Your task to perform on an android device: Clear all items from cart on costco. Image 0: 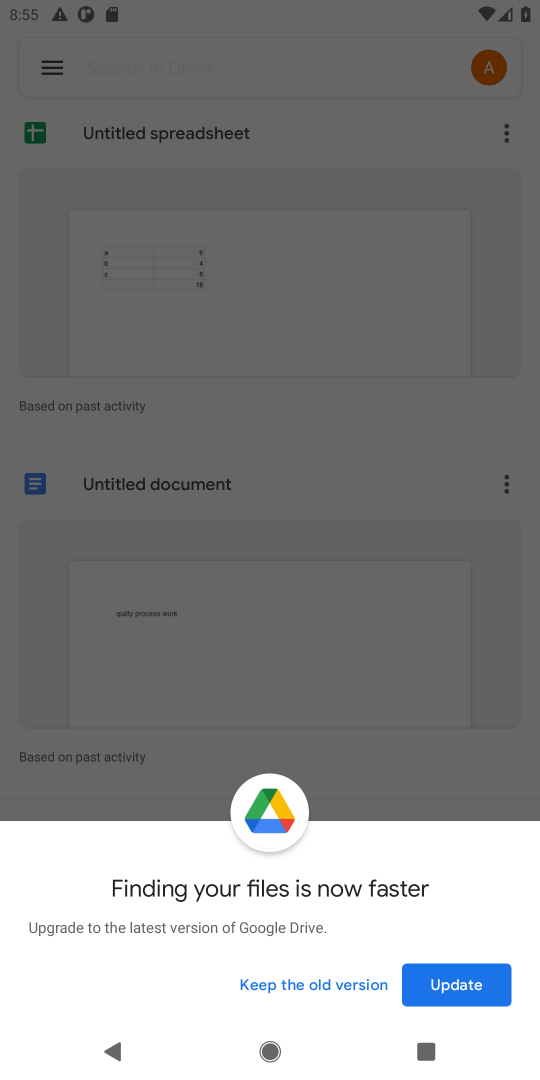
Step 0: press home button
Your task to perform on an android device: Clear all items from cart on costco. Image 1: 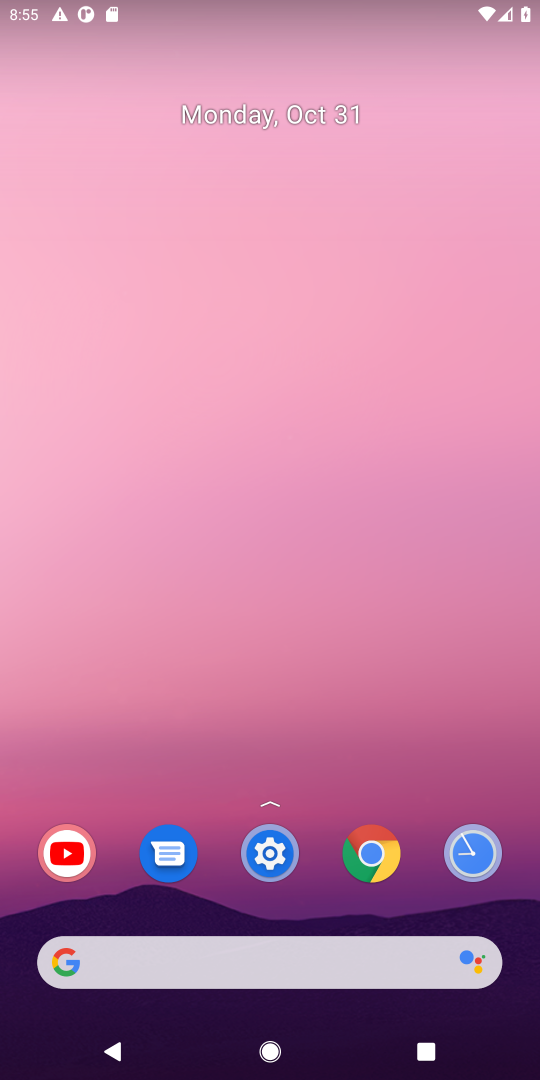
Step 1: click (336, 966)
Your task to perform on an android device: Clear all items from cart on costco. Image 2: 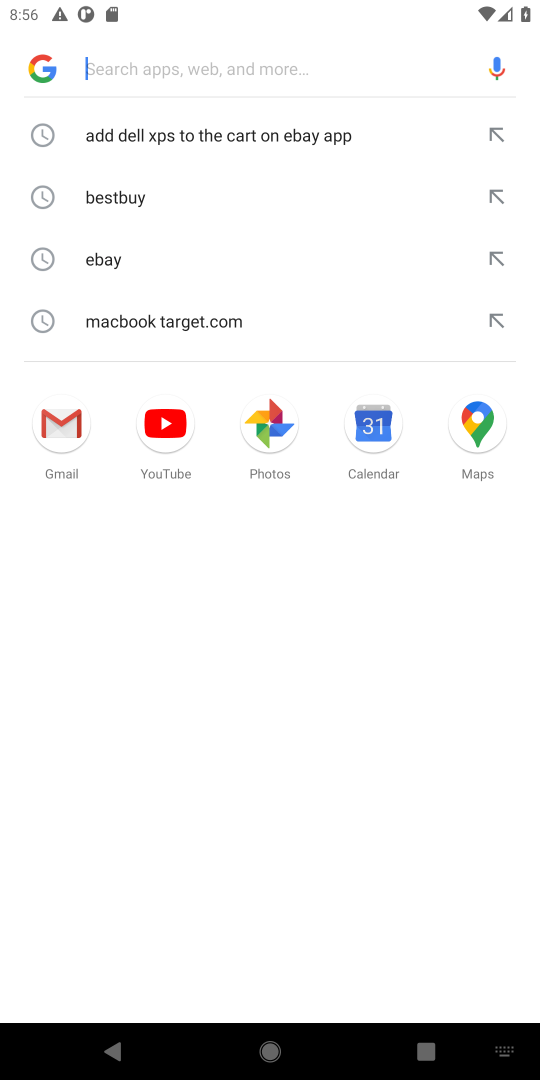
Step 2: type "costco"
Your task to perform on an android device: Clear all items from cart on costco. Image 3: 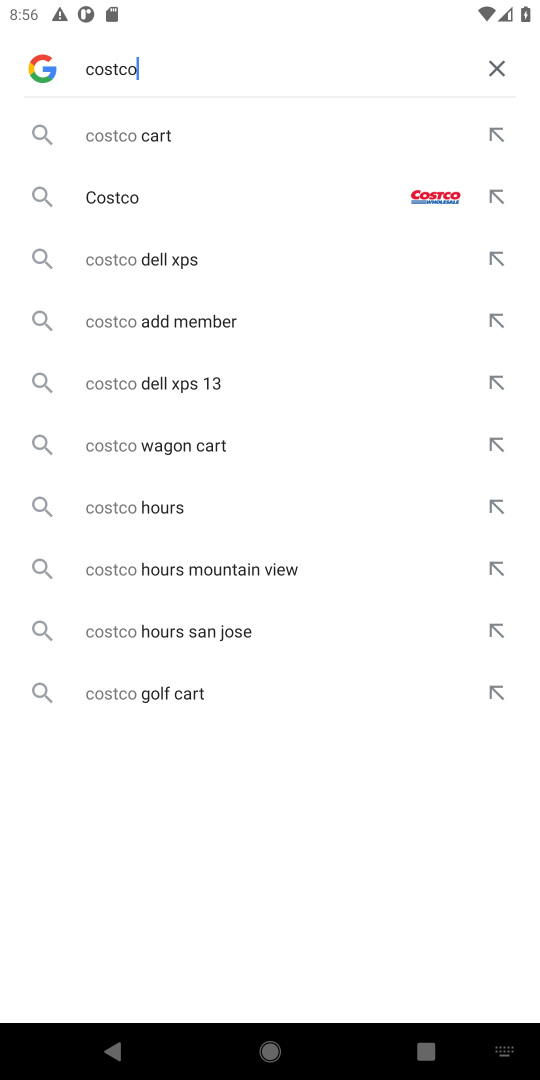
Step 3: click (145, 186)
Your task to perform on an android device: Clear all items from cart on costco. Image 4: 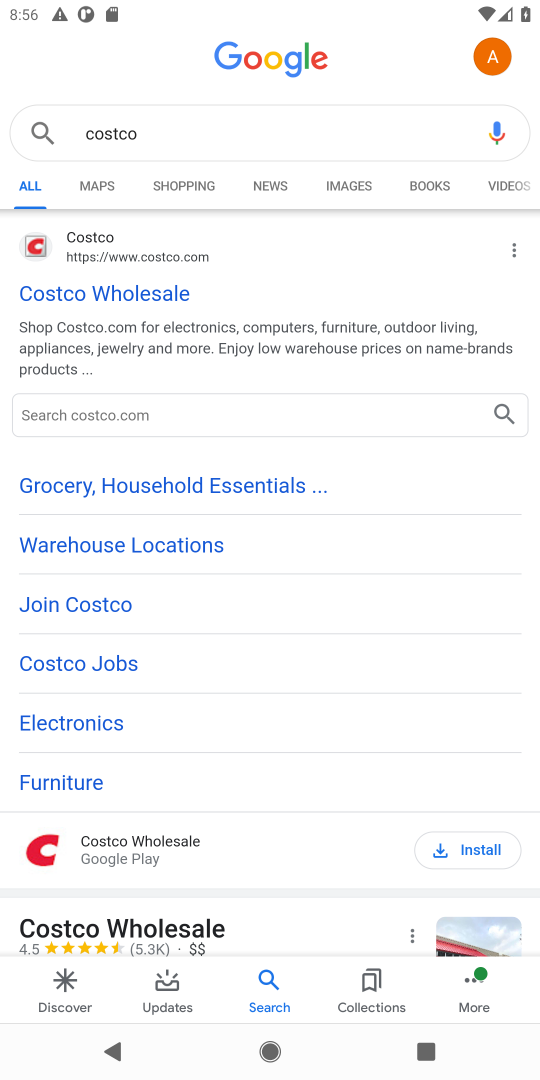
Step 4: click (79, 287)
Your task to perform on an android device: Clear all items from cart on costco. Image 5: 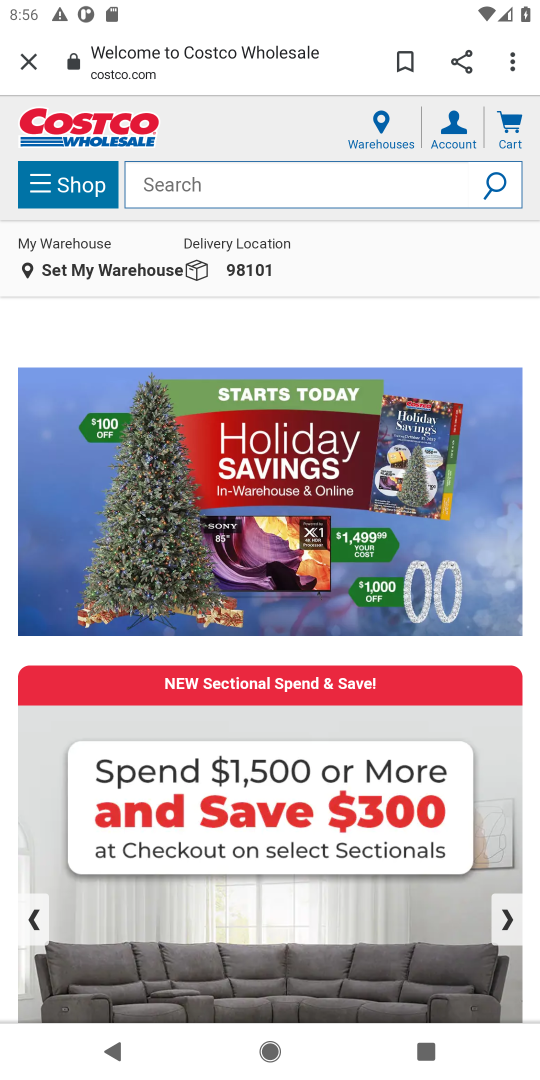
Step 5: click (208, 179)
Your task to perform on an android device: Clear all items from cart on costco. Image 6: 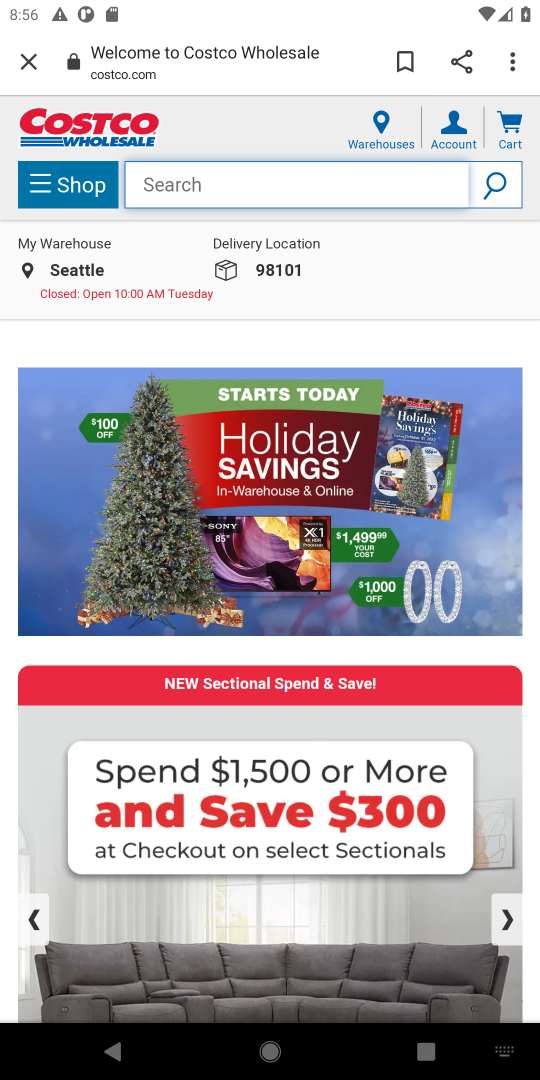
Step 6: click (509, 118)
Your task to perform on an android device: Clear all items from cart on costco. Image 7: 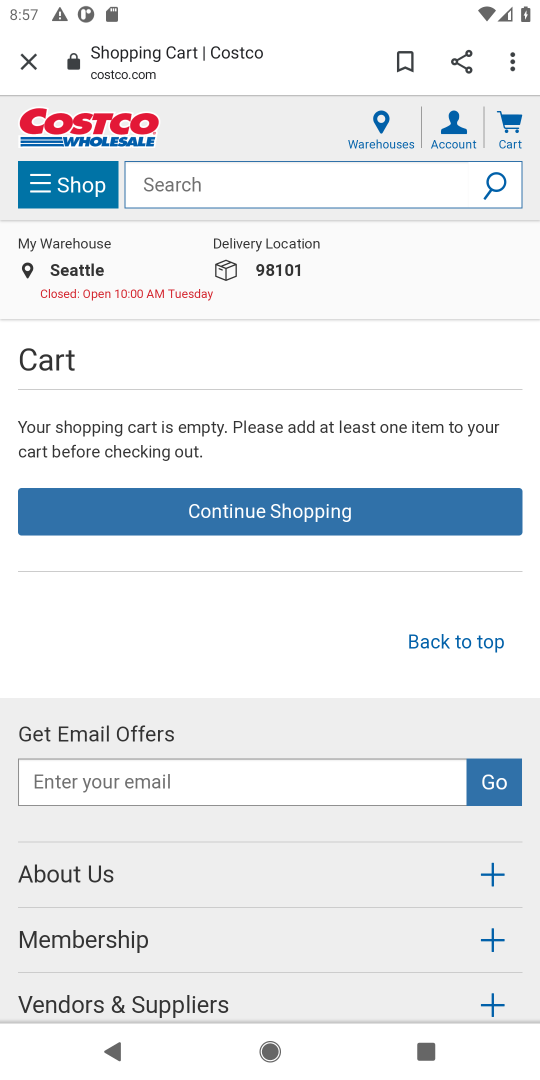
Step 7: task complete